Your task to perform on an android device: Show me the alarms in the clock app Image 0: 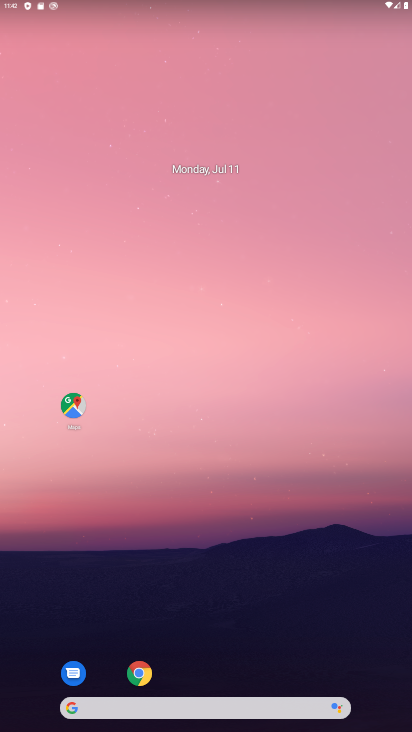
Step 0: press home button
Your task to perform on an android device: Show me the alarms in the clock app Image 1: 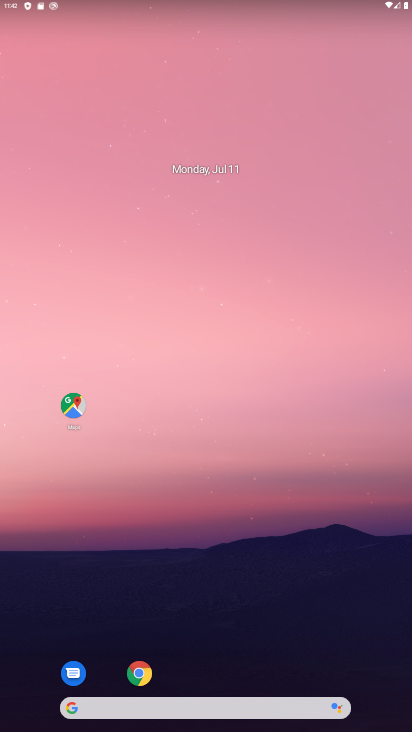
Step 1: click (274, 81)
Your task to perform on an android device: Show me the alarms in the clock app Image 2: 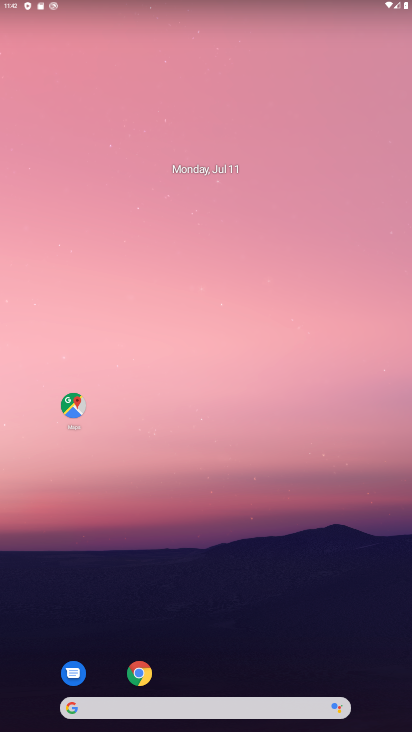
Step 2: drag from (208, 676) to (224, 1)
Your task to perform on an android device: Show me the alarms in the clock app Image 3: 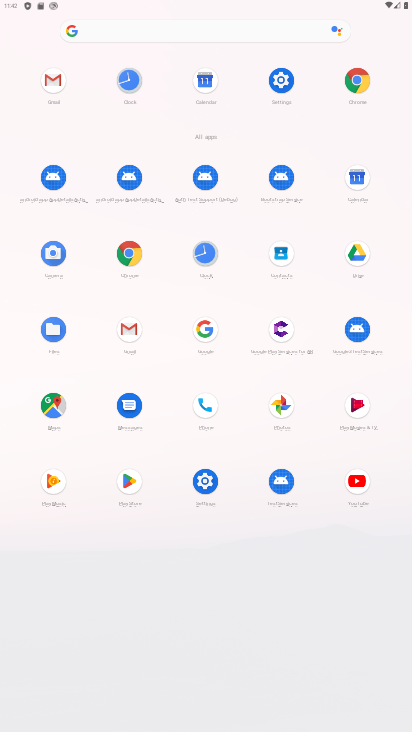
Step 3: click (200, 247)
Your task to perform on an android device: Show me the alarms in the clock app Image 4: 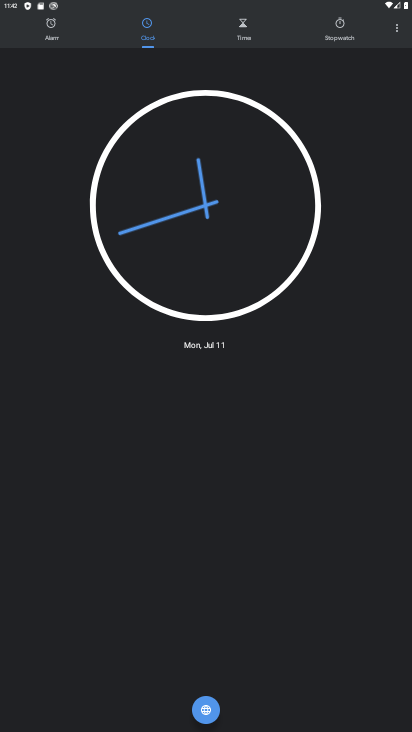
Step 4: click (53, 19)
Your task to perform on an android device: Show me the alarms in the clock app Image 5: 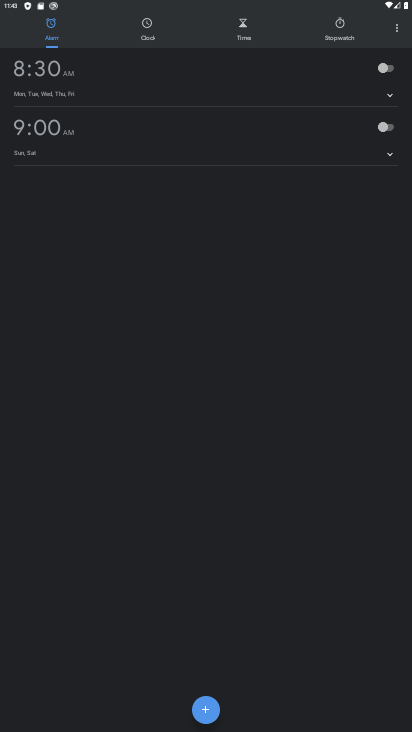
Step 5: click (395, 70)
Your task to perform on an android device: Show me the alarms in the clock app Image 6: 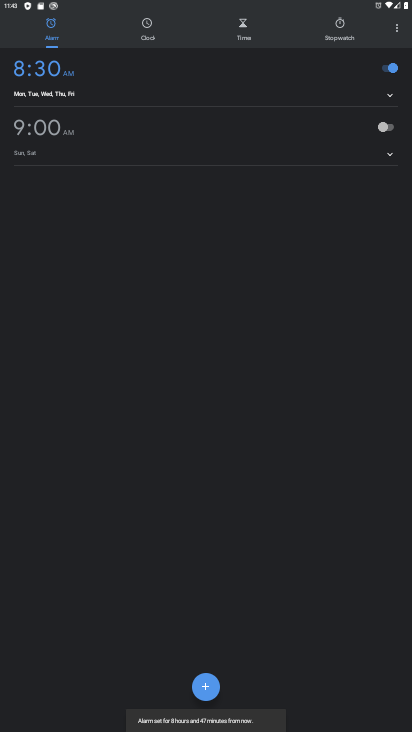
Step 6: task complete